Your task to perform on an android device: install app "Google Calendar" Image 0: 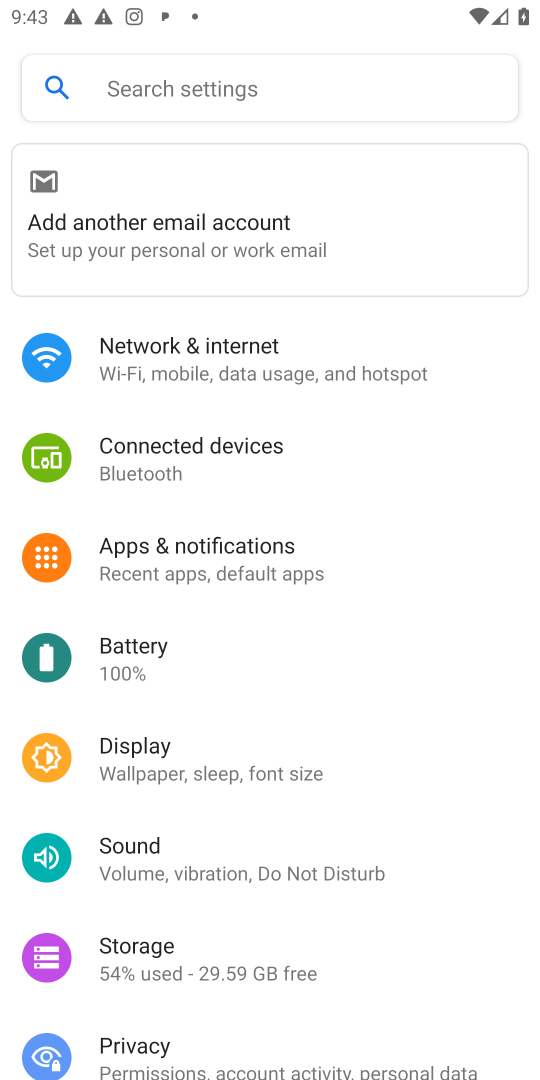
Step 0: press home button
Your task to perform on an android device: install app "Google Calendar" Image 1: 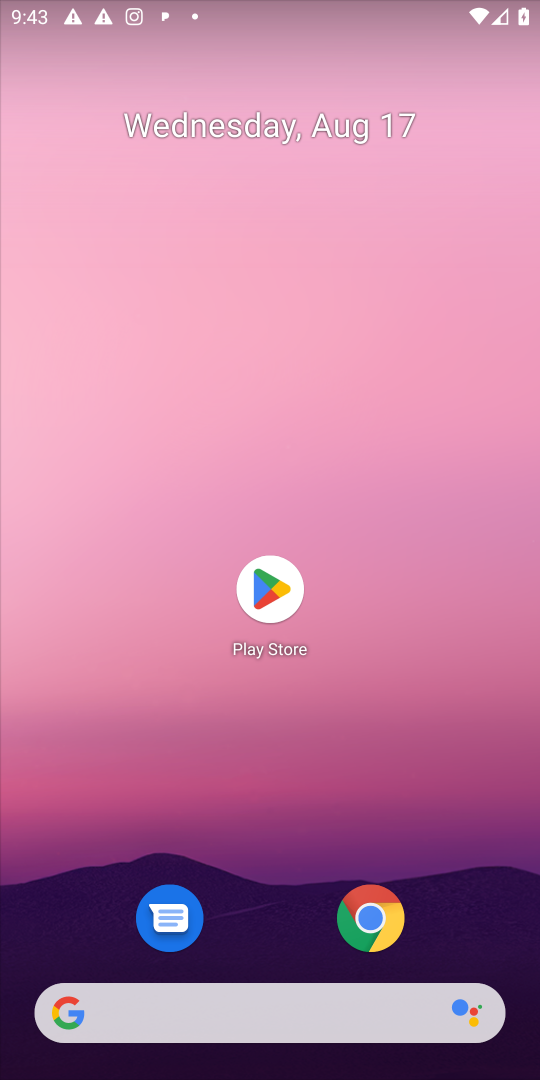
Step 1: click (265, 596)
Your task to perform on an android device: install app "Google Calendar" Image 2: 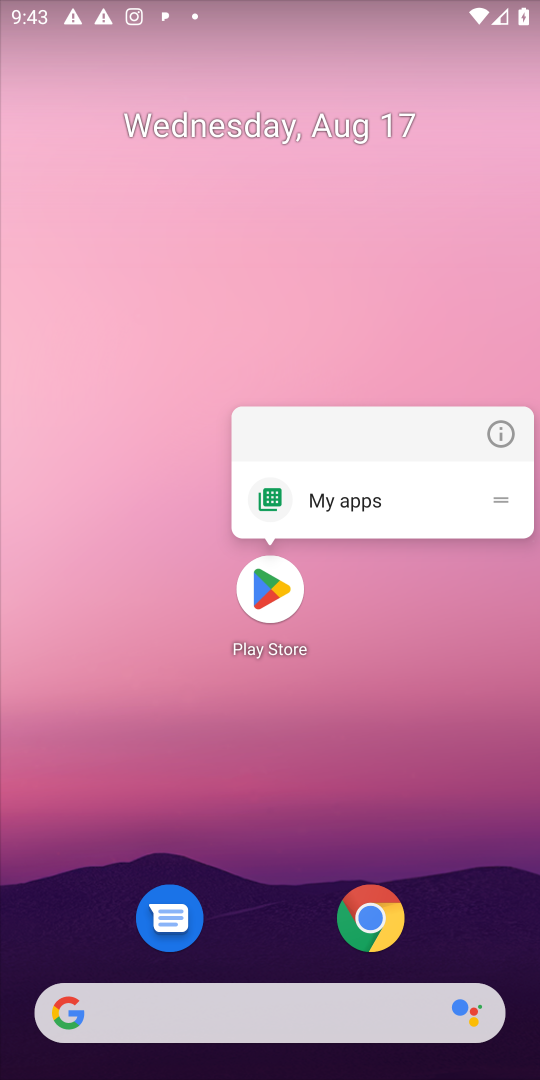
Step 2: click (265, 601)
Your task to perform on an android device: install app "Google Calendar" Image 3: 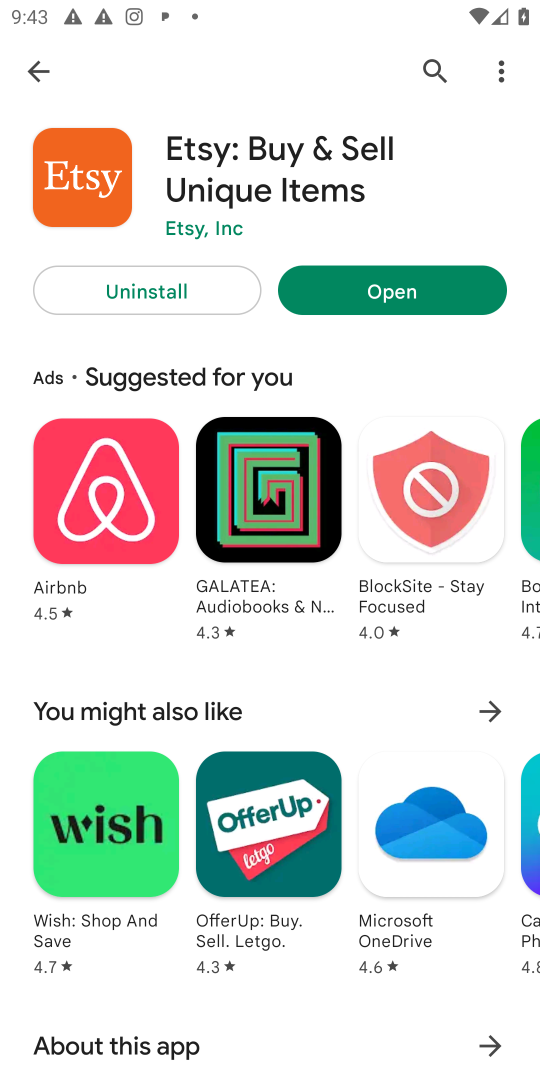
Step 3: click (423, 58)
Your task to perform on an android device: install app "Google Calendar" Image 4: 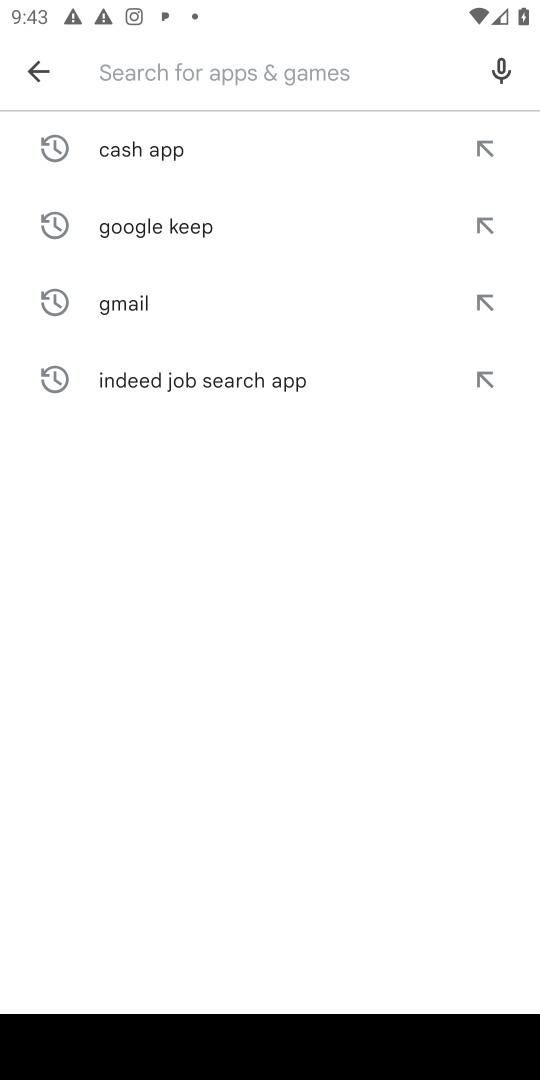
Step 4: type "Google Calendar"
Your task to perform on an android device: install app "Google Calendar" Image 5: 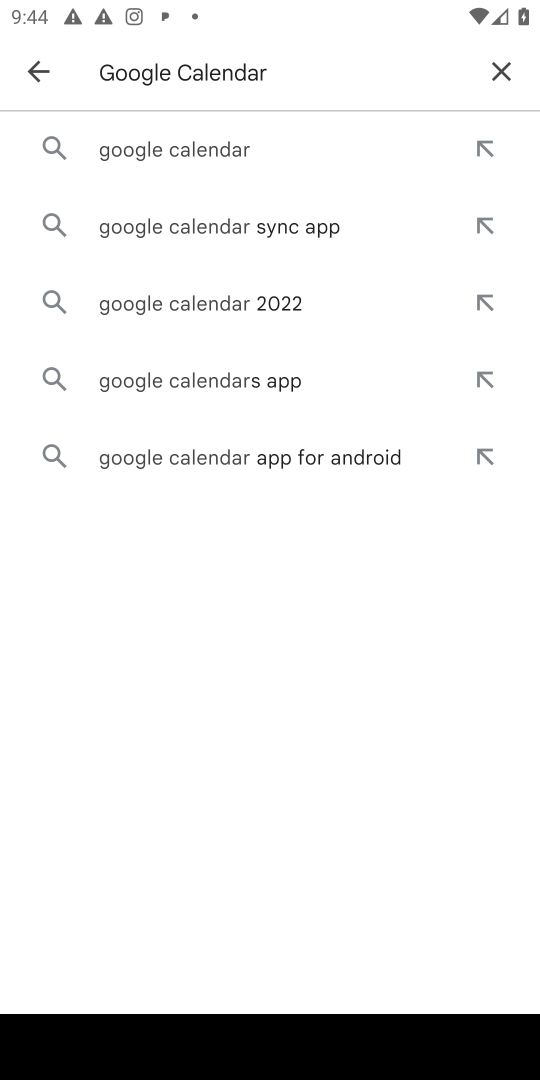
Step 5: click (180, 147)
Your task to perform on an android device: install app "Google Calendar" Image 6: 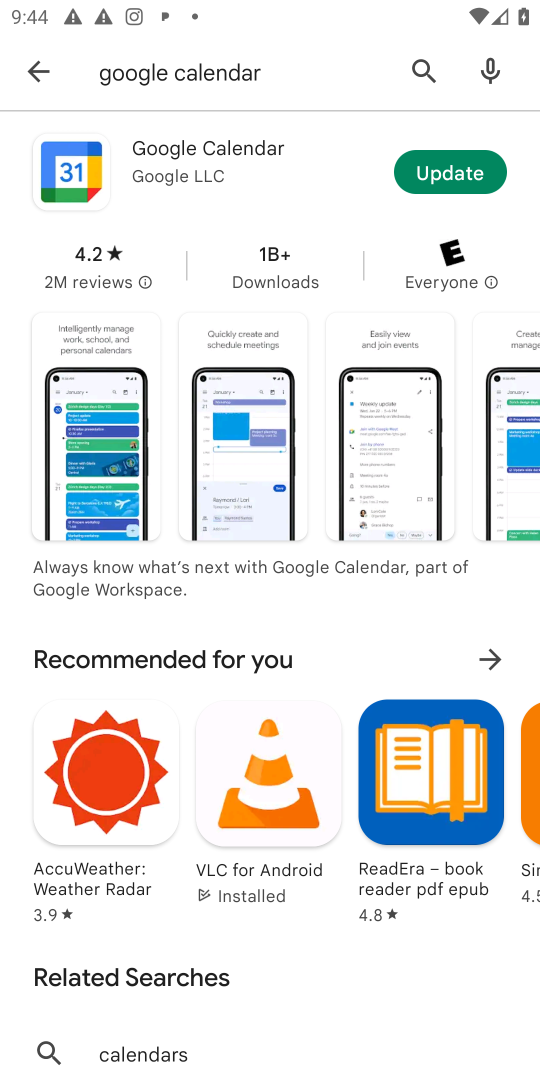
Step 6: click (146, 173)
Your task to perform on an android device: install app "Google Calendar" Image 7: 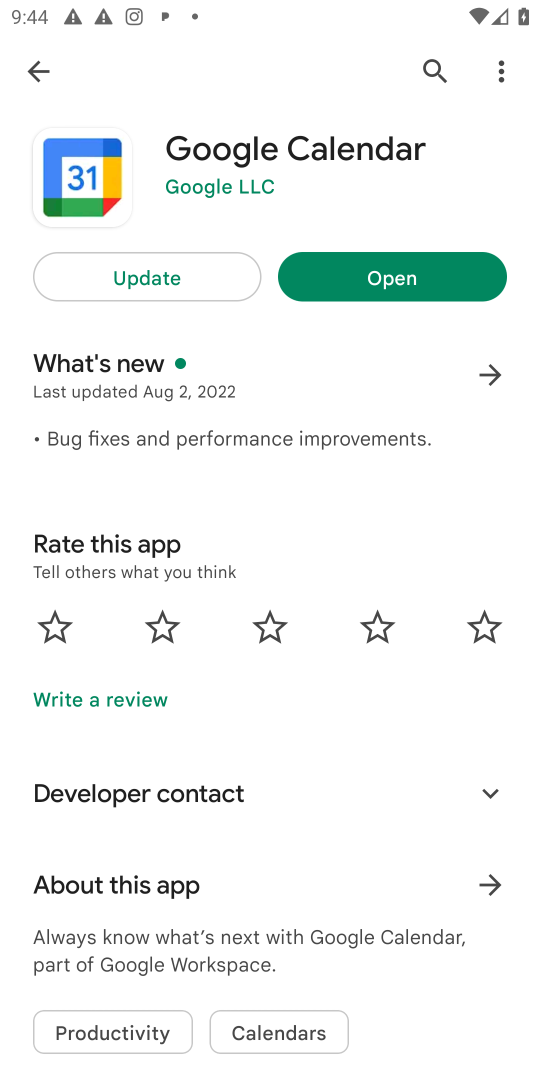
Step 7: task complete